Your task to perform on an android device: change notification settings in the gmail app Image 0: 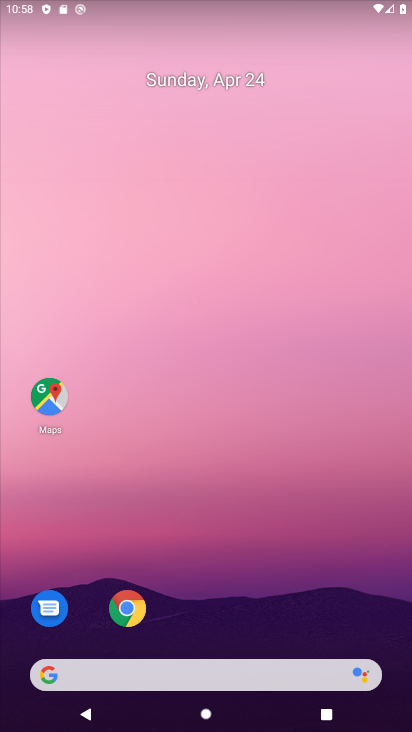
Step 0: drag from (273, 547) to (319, 27)
Your task to perform on an android device: change notification settings in the gmail app Image 1: 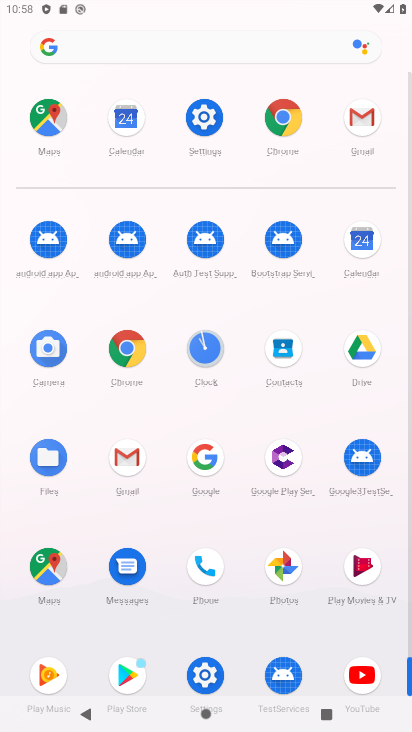
Step 1: drag from (9, 521) to (14, 256)
Your task to perform on an android device: change notification settings in the gmail app Image 2: 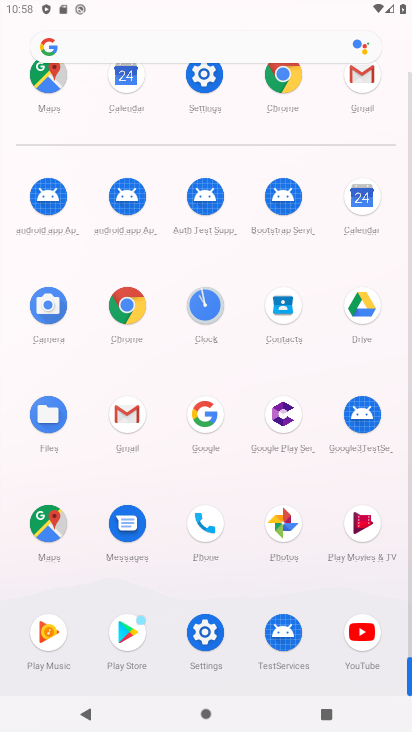
Step 2: click (120, 414)
Your task to perform on an android device: change notification settings in the gmail app Image 3: 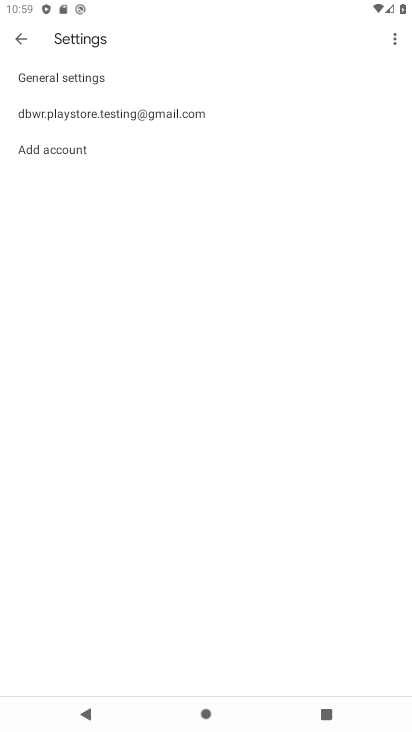
Step 3: click (137, 108)
Your task to perform on an android device: change notification settings in the gmail app Image 4: 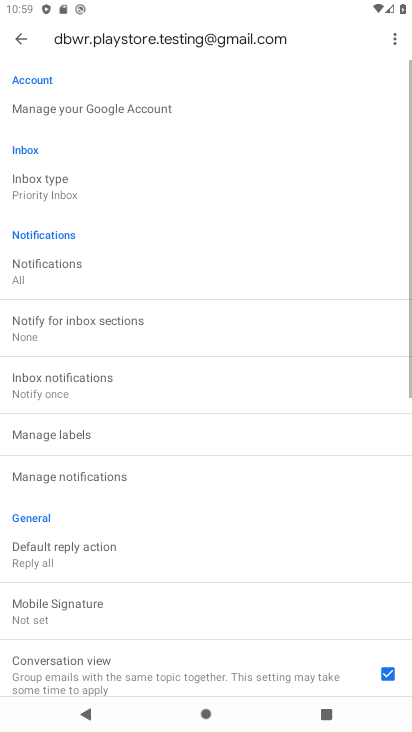
Step 4: click (91, 474)
Your task to perform on an android device: change notification settings in the gmail app Image 5: 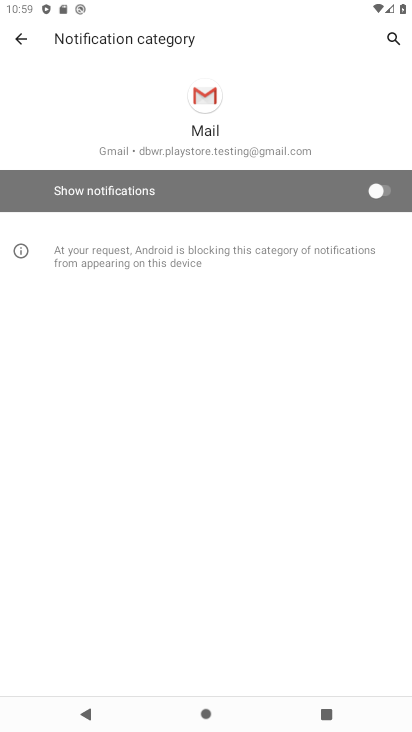
Step 5: click (386, 191)
Your task to perform on an android device: change notification settings in the gmail app Image 6: 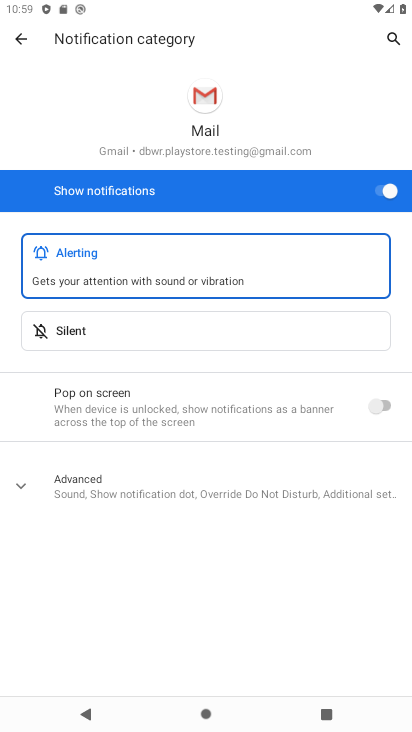
Step 6: task complete